Your task to perform on an android device: turn vacation reply on in the gmail app Image 0: 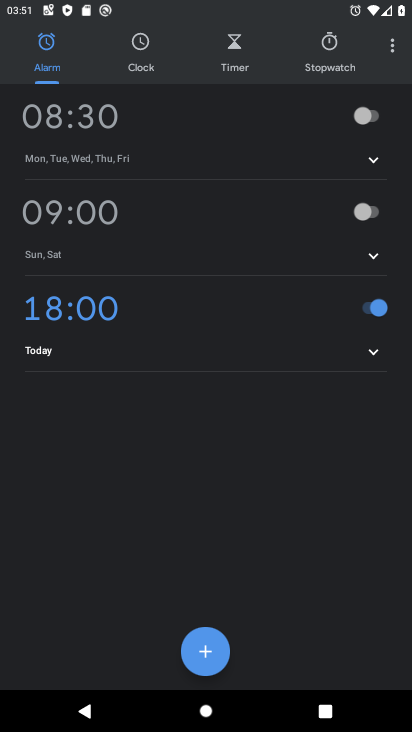
Step 0: press home button
Your task to perform on an android device: turn vacation reply on in the gmail app Image 1: 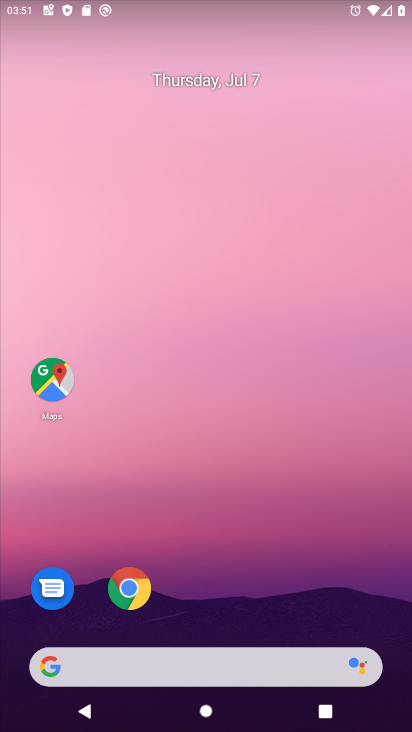
Step 1: drag from (143, 648) to (150, 231)
Your task to perform on an android device: turn vacation reply on in the gmail app Image 2: 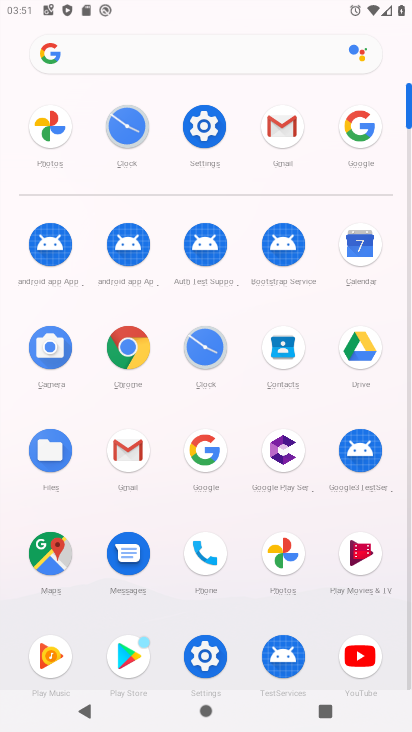
Step 2: click (289, 129)
Your task to perform on an android device: turn vacation reply on in the gmail app Image 3: 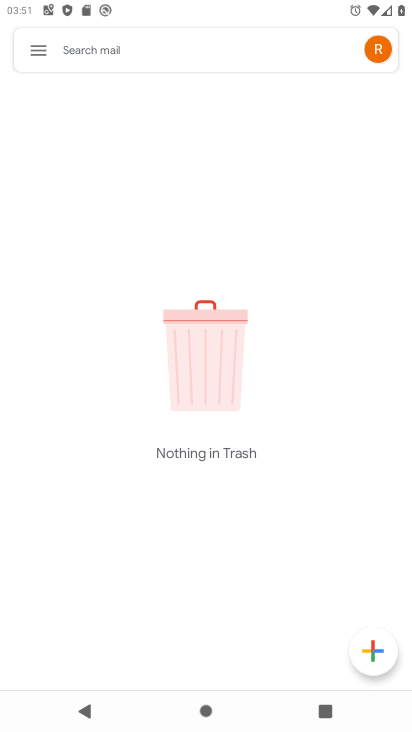
Step 3: click (40, 49)
Your task to perform on an android device: turn vacation reply on in the gmail app Image 4: 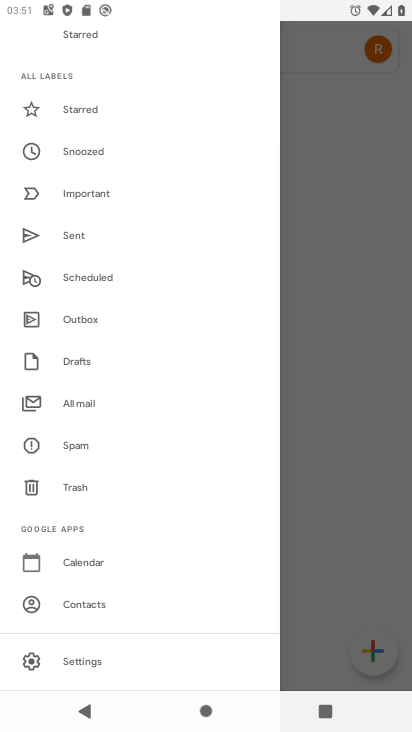
Step 4: drag from (87, 644) to (97, 319)
Your task to perform on an android device: turn vacation reply on in the gmail app Image 5: 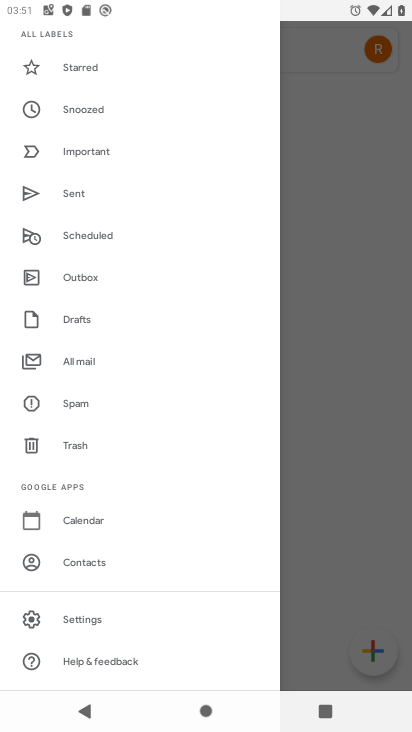
Step 5: click (91, 617)
Your task to perform on an android device: turn vacation reply on in the gmail app Image 6: 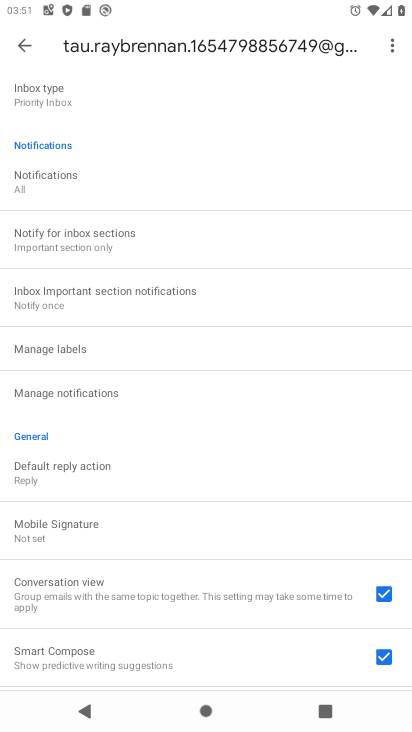
Step 6: drag from (118, 670) to (127, 327)
Your task to perform on an android device: turn vacation reply on in the gmail app Image 7: 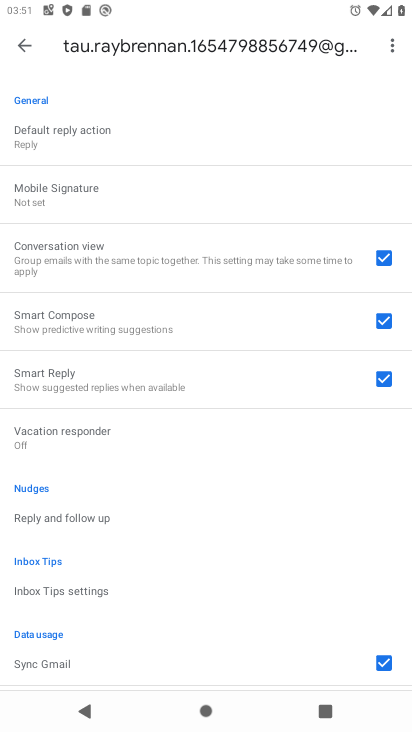
Step 7: click (40, 440)
Your task to perform on an android device: turn vacation reply on in the gmail app Image 8: 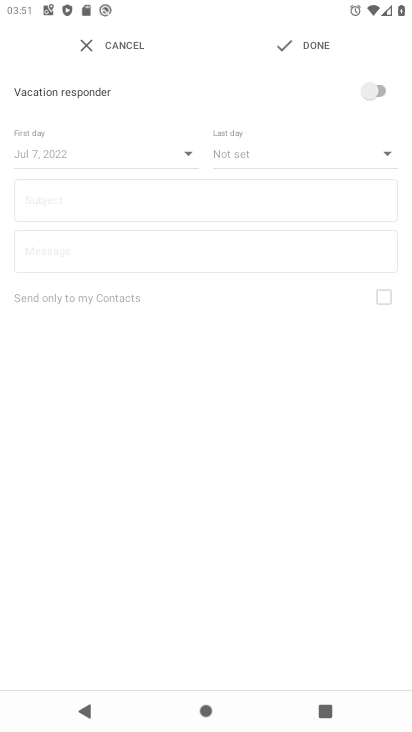
Step 8: click (374, 90)
Your task to perform on an android device: turn vacation reply on in the gmail app Image 9: 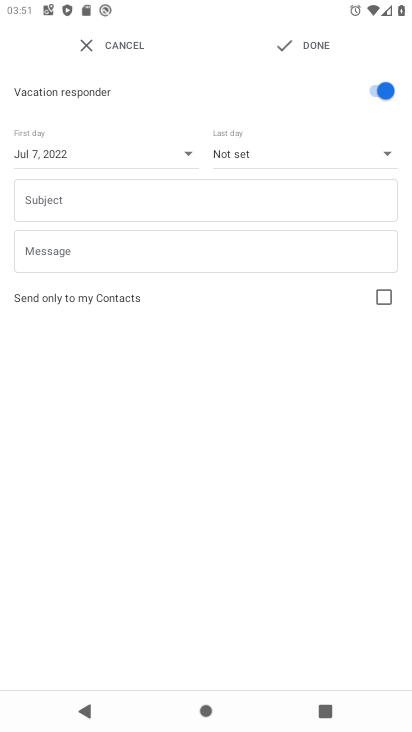
Step 9: click (317, 42)
Your task to perform on an android device: turn vacation reply on in the gmail app Image 10: 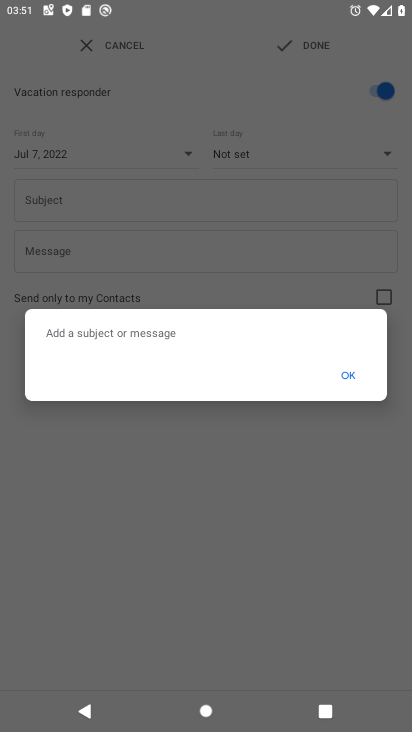
Step 10: click (346, 381)
Your task to perform on an android device: turn vacation reply on in the gmail app Image 11: 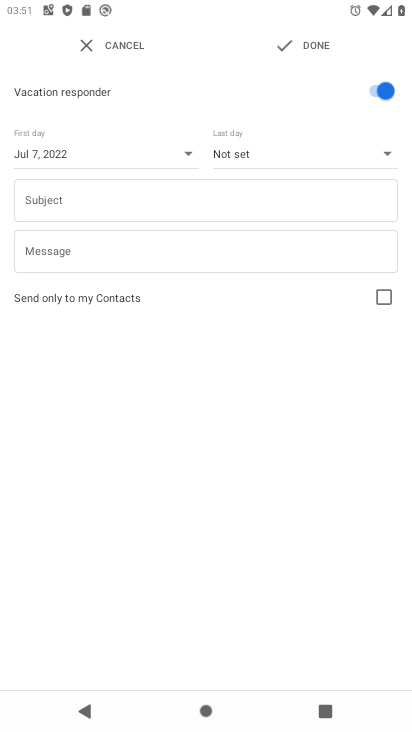
Step 11: task complete